Your task to perform on an android device: turn notification dots on Image 0: 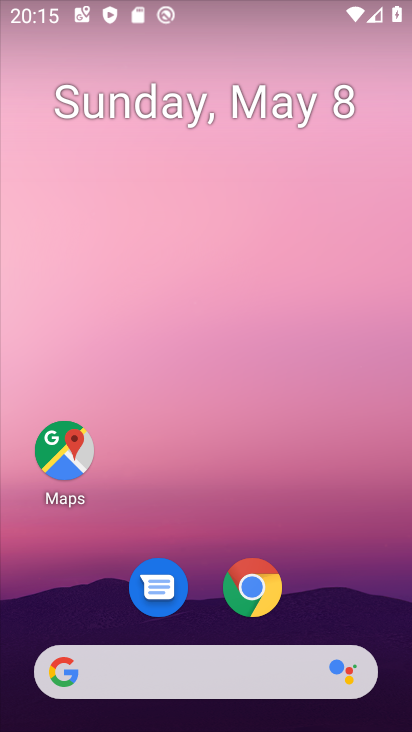
Step 0: drag from (218, 529) to (222, 92)
Your task to perform on an android device: turn notification dots on Image 1: 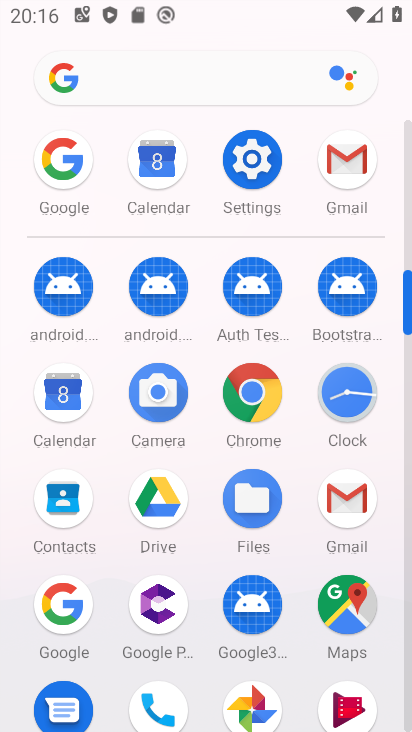
Step 1: click (253, 159)
Your task to perform on an android device: turn notification dots on Image 2: 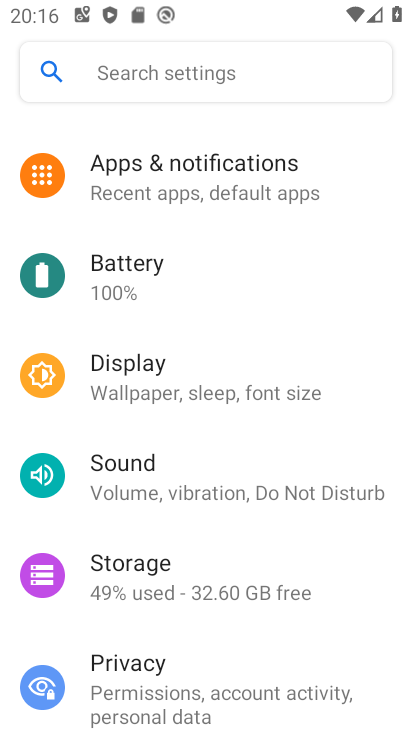
Step 2: click (201, 166)
Your task to perform on an android device: turn notification dots on Image 3: 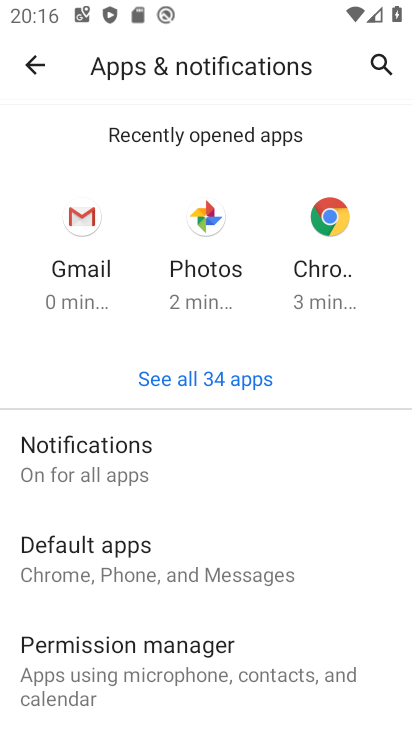
Step 3: click (134, 449)
Your task to perform on an android device: turn notification dots on Image 4: 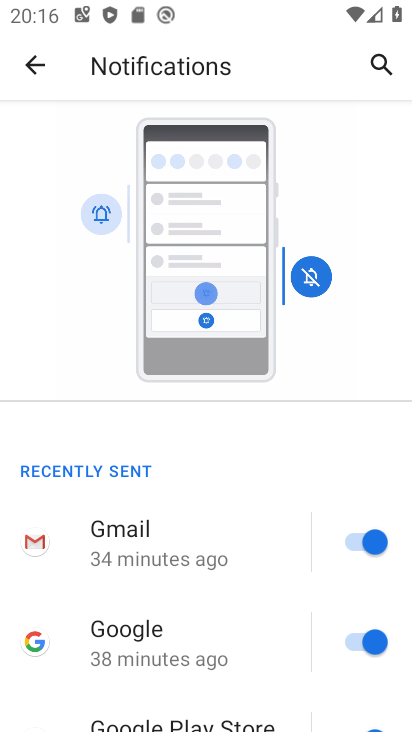
Step 4: drag from (185, 524) to (243, 325)
Your task to perform on an android device: turn notification dots on Image 5: 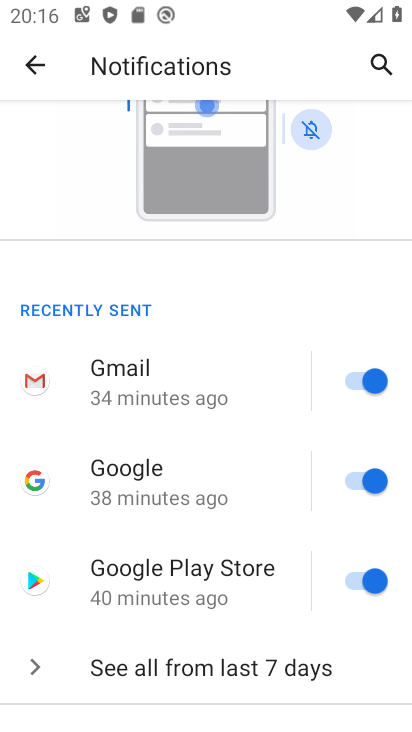
Step 5: drag from (186, 620) to (235, 470)
Your task to perform on an android device: turn notification dots on Image 6: 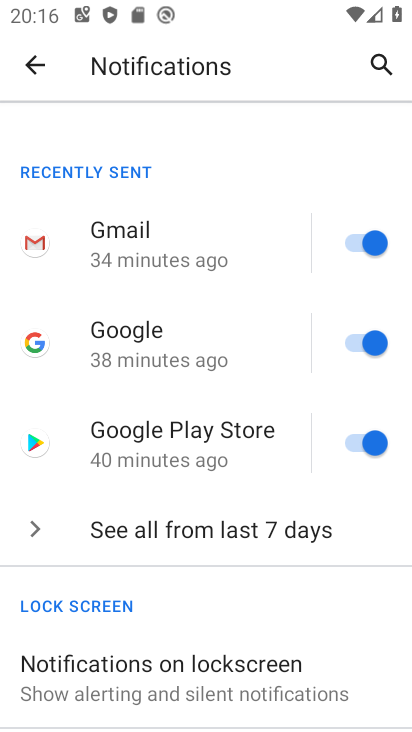
Step 6: drag from (174, 623) to (240, 466)
Your task to perform on an android device: turn notification dots on Image 7: 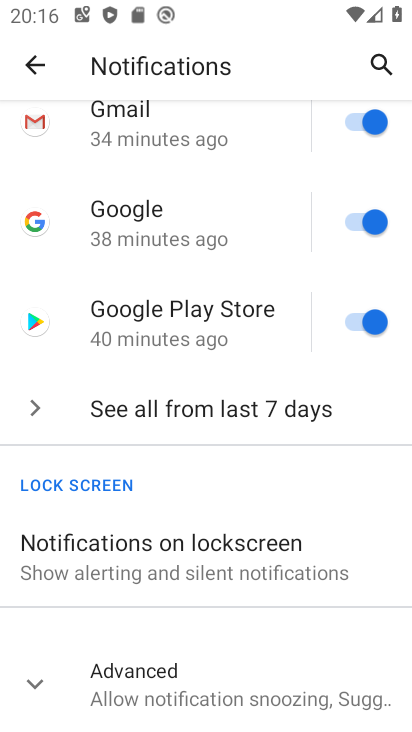
Step 7: drag from (169, 608) to (263, 486)
Your task to perform on an android device: turn notification dots on Image 8: 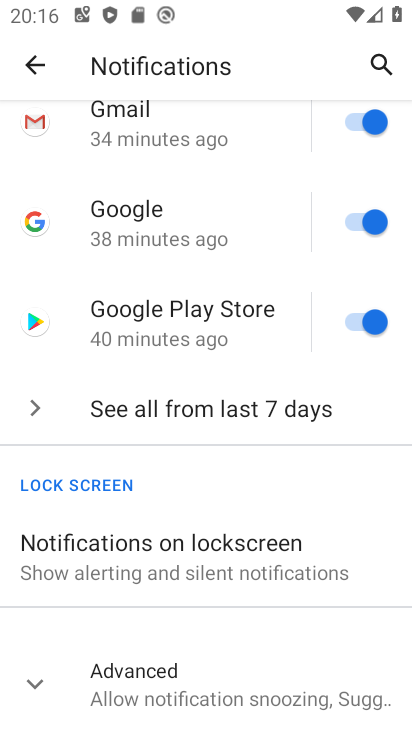
Step 8: click (145, 670)
Your task to perform on an android device: turn notification dots on Image 9: 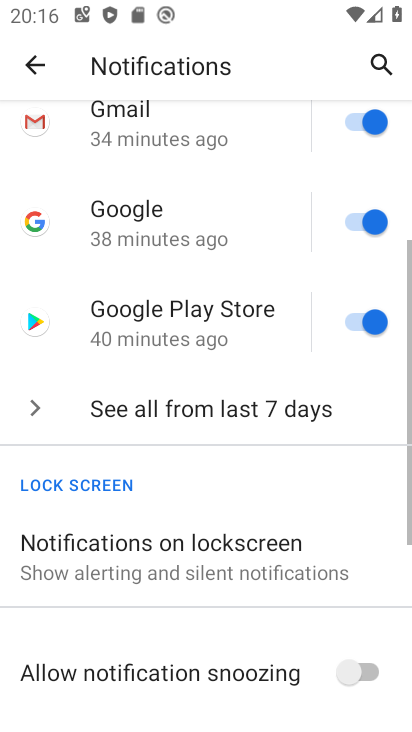
Step 9: task complete